Your task to perform on an android device: Open Chrome and go to settings Image 0: 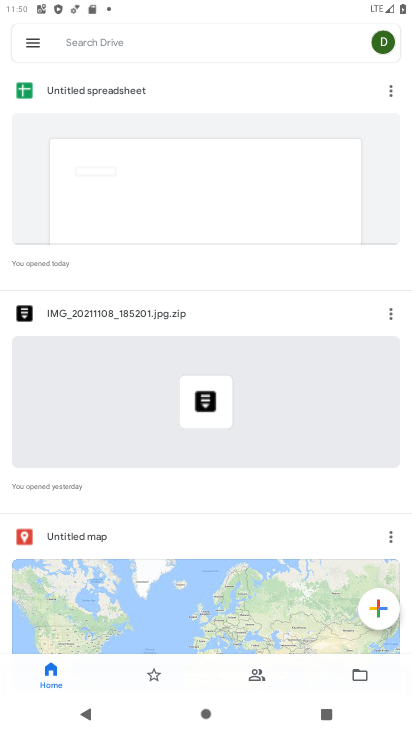
Step 0: press home button
Your task to perform on an android device: Open Chrome and go to settings Image 1: 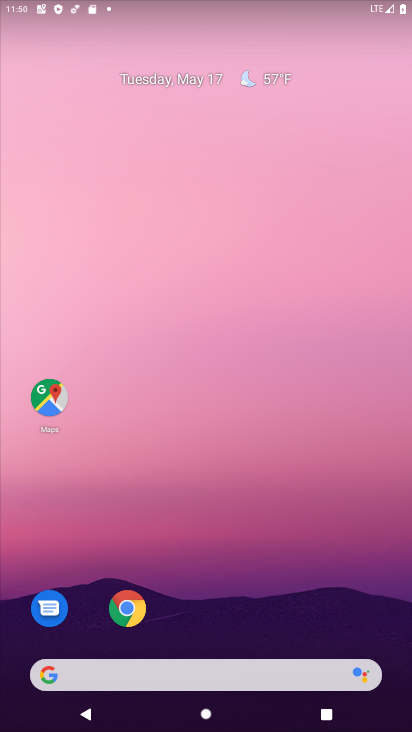
Step 1: drag from (252, 570) to (216, 128)
Your task to perform on an android device: Open Chrome and go to settings Image 2: 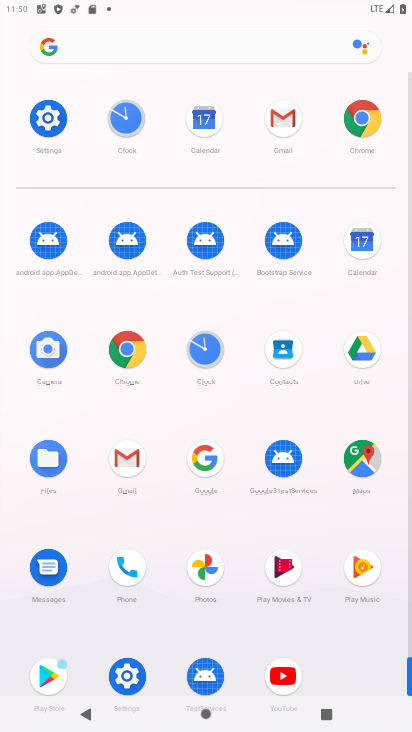
Step 2: click (130, 348)
Your task to perform on an android device: Open Chrome and go to settings Image 3: 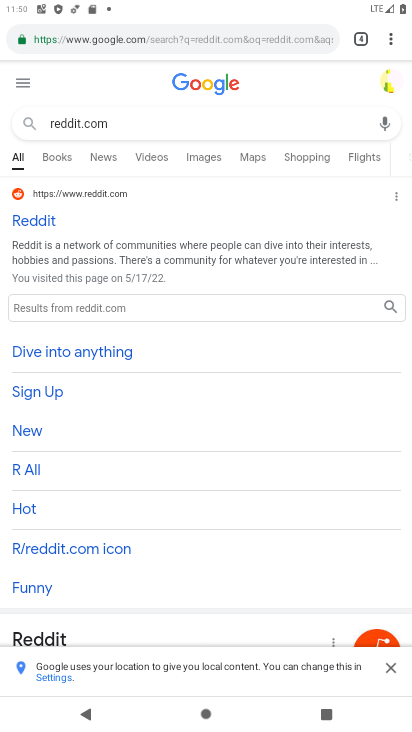
Step 3: click (387, 43)
Your task to perform on an android device: Open Chrome and go to settings Image 4: 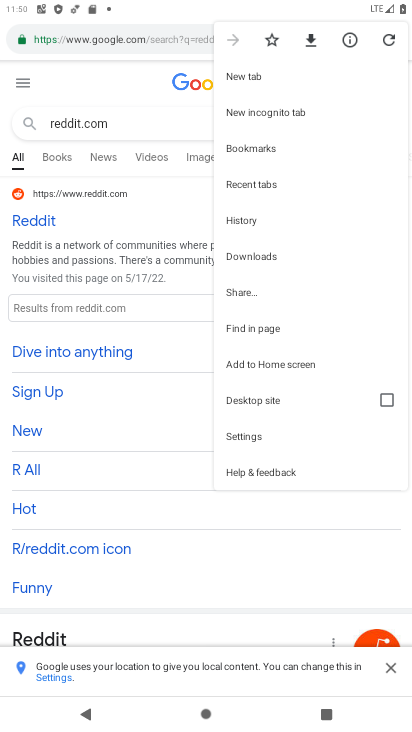
Step 4: click (244, 433)
Your task to perform on an android device: Open Chrome and go to settings Image 5: 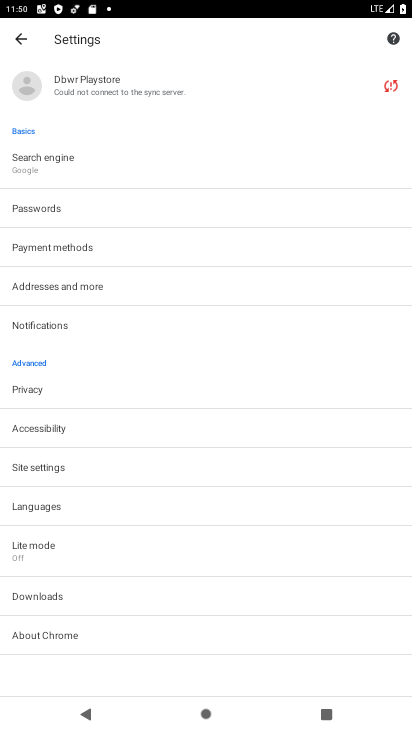
Step 5: task complete